Your task to perform on an android device: delete the emails in spam in the gmail app Image 0: 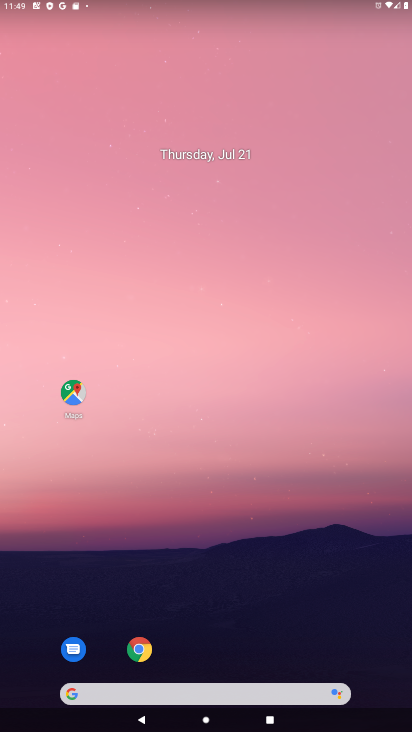
Step 0: drag from (284, 597) to (354, 100)
Your task to perform on an android device: delete the emails in spam in the gmail app Image 1: 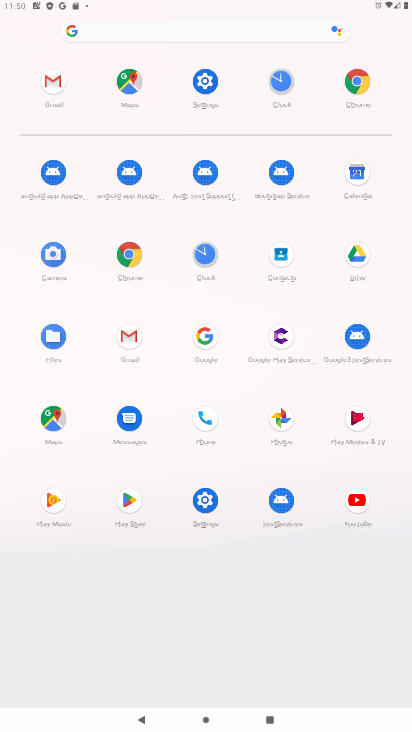
Step 1: click (48, 82)
Your task to perform on an android device: delete the emails in spam in the gmail app Image 2: 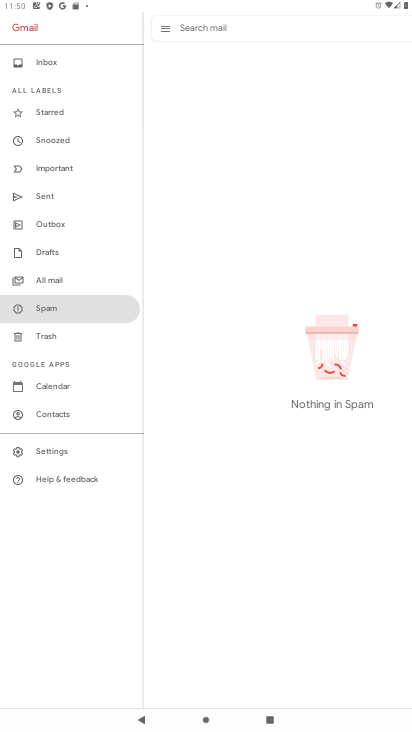
Step 2: task complete